Your task to perform on an android device: Is it going to rain today? Image 0: 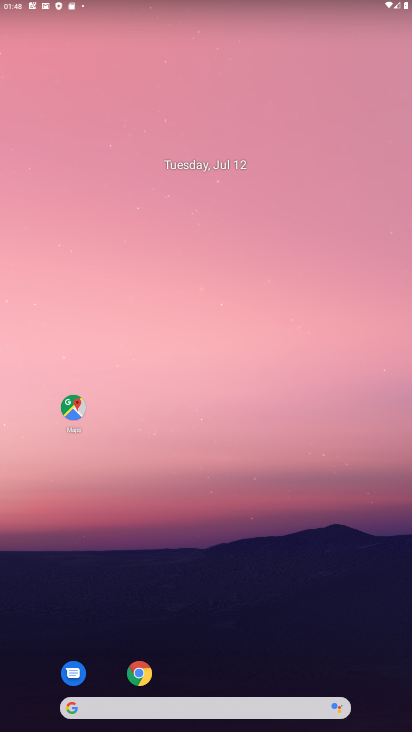
Step 0: click (211, 706)
Your task to perform on an android device: Is it going to rain today? Image 1: 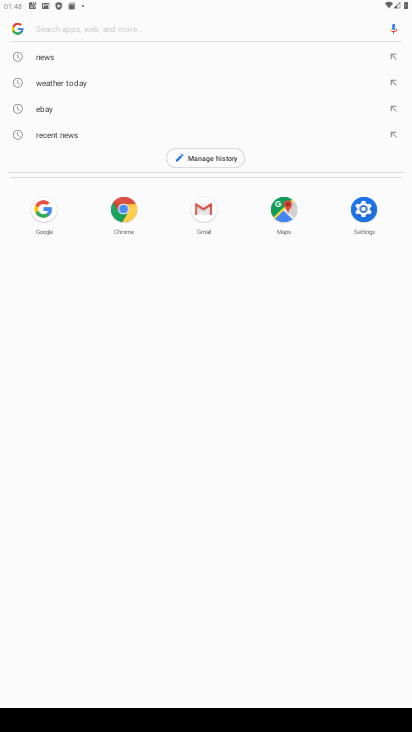
Step 1: type "Is it going to rain today?"
Your task to perform on an android device: Is it going to rain today? Image 2: 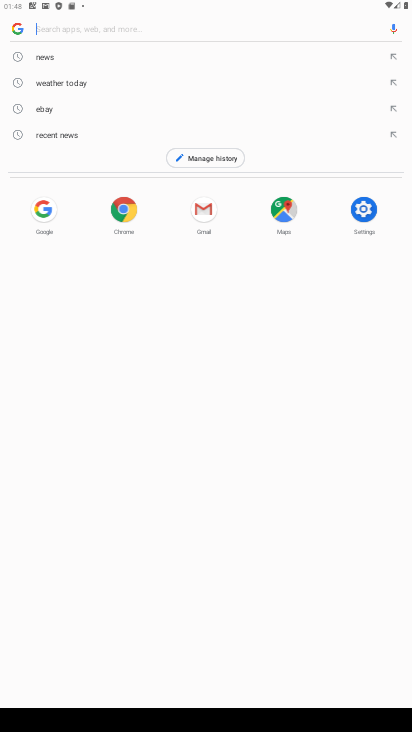
Step 2: click (84, 29)
Your task to perform on an android device: Is it going to rain today? Image 3: 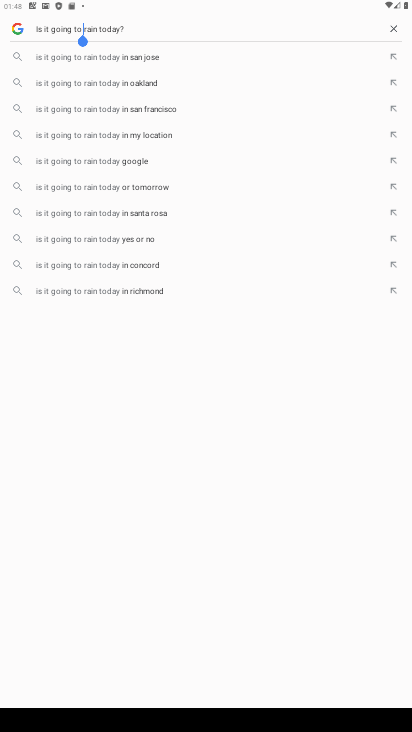
Step 3: press enter
Your task to perform on an android device: Is it going to rain today? Image 4: 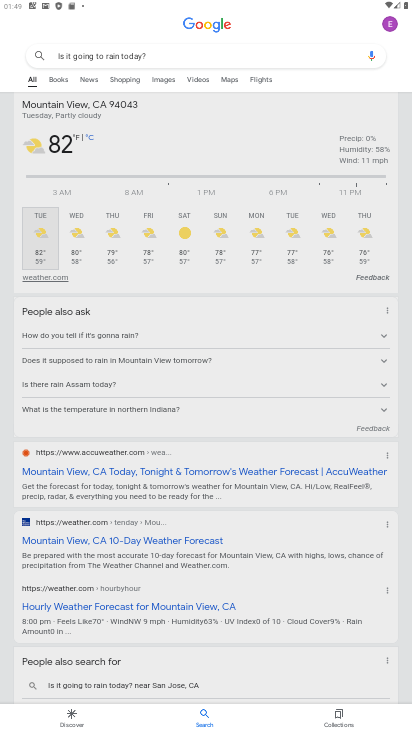
Step 4: task complete